Your task to perform on an android device: allow cookies in the chrome app Image 0: 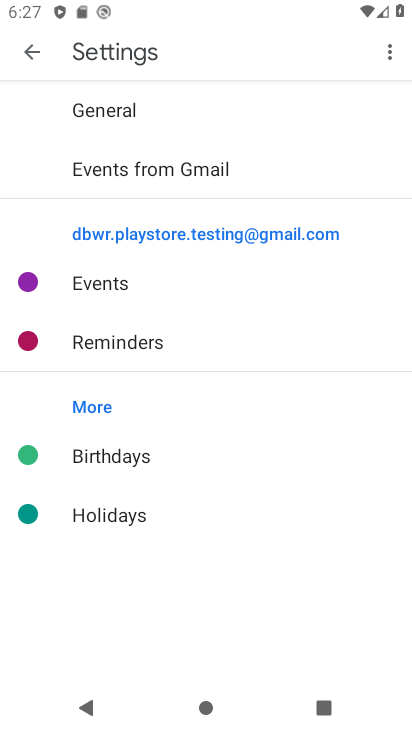
Step 0: press home button
Your task to perform on an android device: allow cookies in the chrome app Image 1: 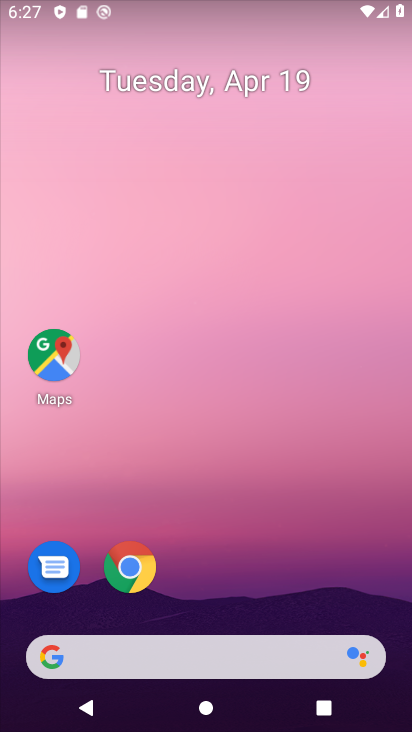
Step 1: click (128, 575)
Your task to perform on an android device: allow cookies in the chrome app Image 2: 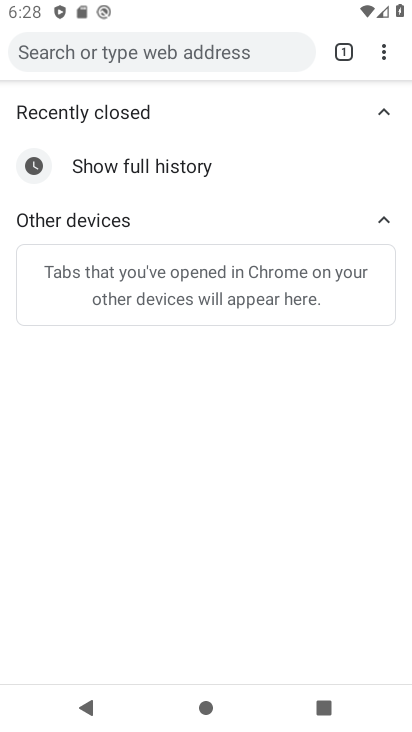
Step 2: click (388, 47)
Your task to perform on an android device: allow cookies in the chrome app Image 3: 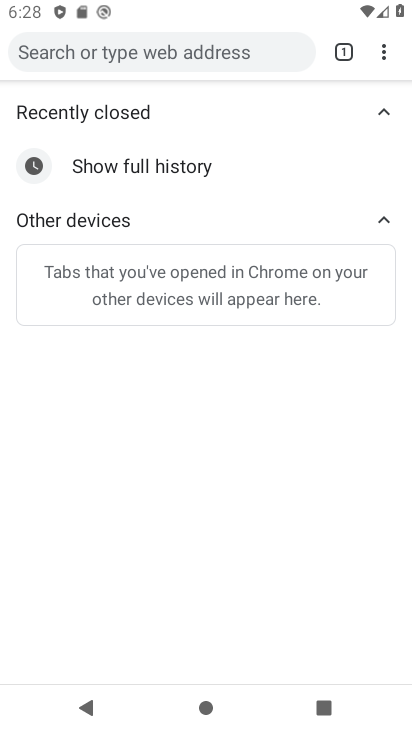
Step 3: drag from (384, 44) to (179, 432)
Your task to perform on an android device: allow cookies in the chrome app Image 4: 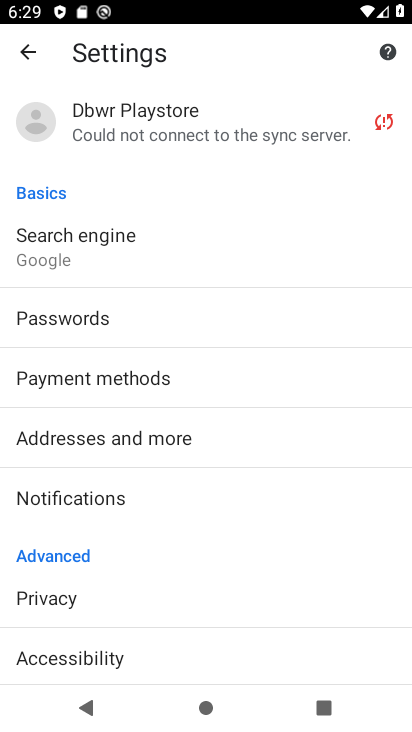
Step 4: drag from (181, 645) to (192, 301)
Your task to perform on an android device: allow cookies in the chrome app Image 5: 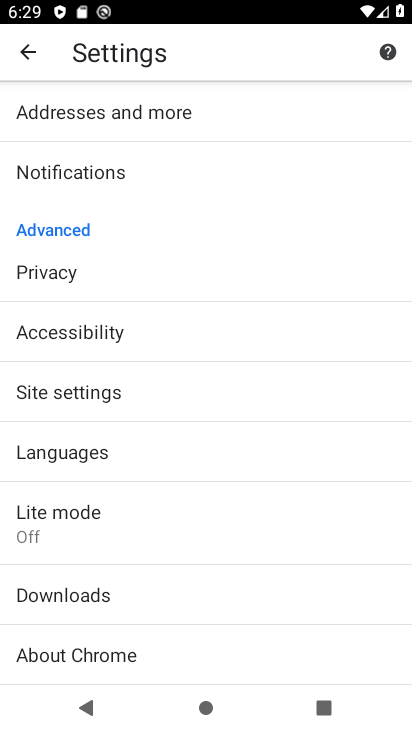
Step 5: click (147, 400)
Your task to perform on an android device: allow cookies in the chrome app Image 6: 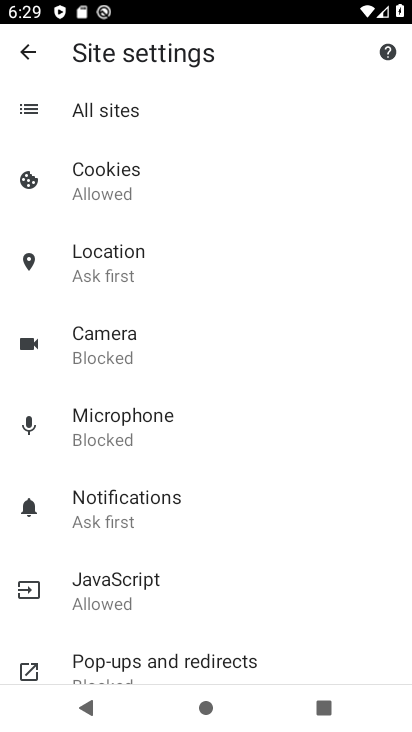
Step 6: click (151, 192)
Your task to perform on an android device: allow cookies in the chrome app Image 7: 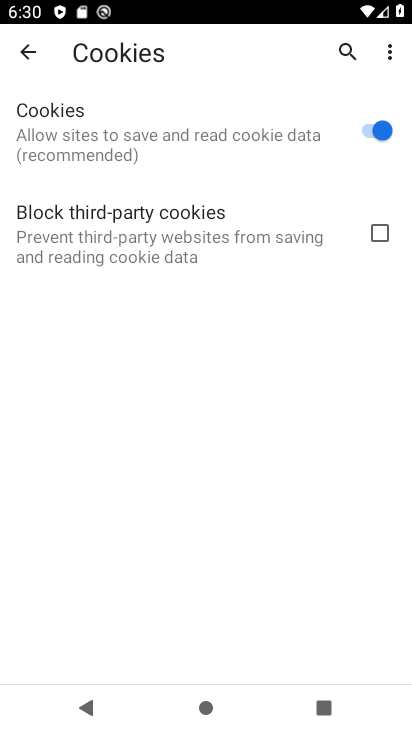
Step 7: task complete